Your task to perform on an android device: Open Google Chrome Image 0: 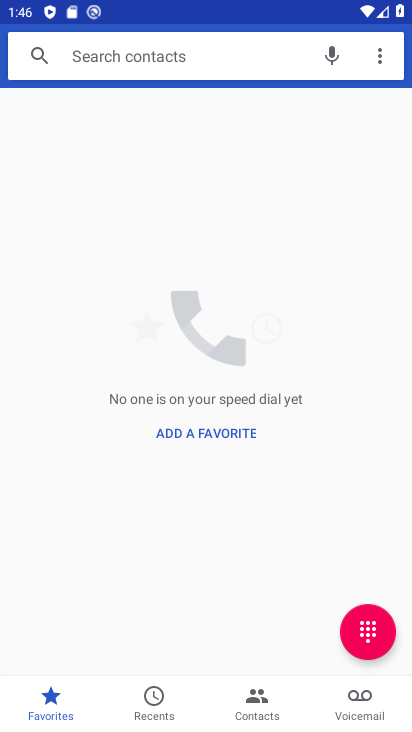
Step 0: press home button
Your task to perform on an android device: Open Google Chrome Image 1: 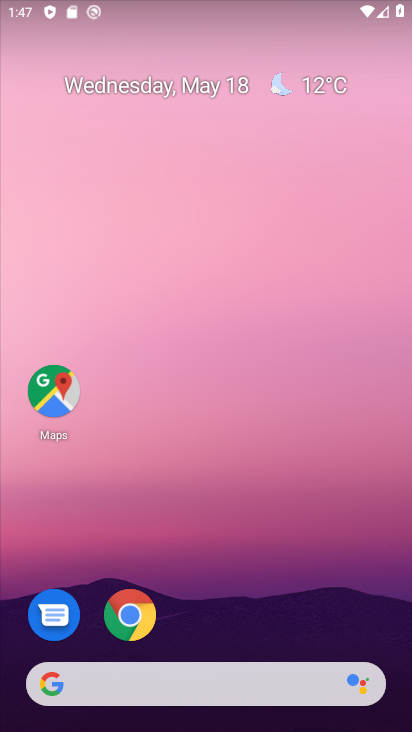
Step 1: drag from (338, 610) to (258, 51)
Your task to perform on an android device: Open Google Chrome Image 2: 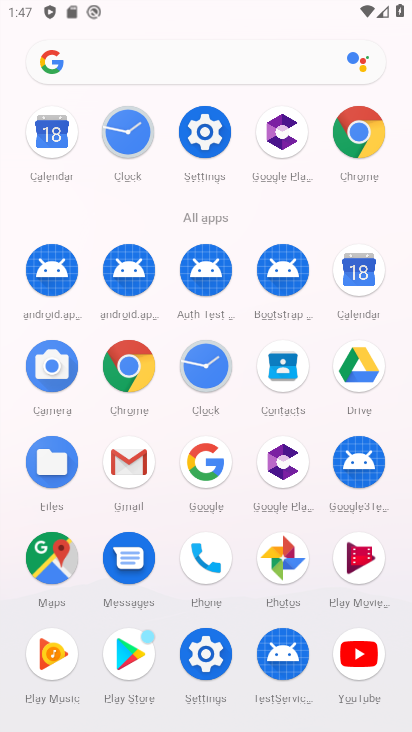
Step 2: click (143, 350)
Your task to perform on an android device: Open Google Chrome Image 3: 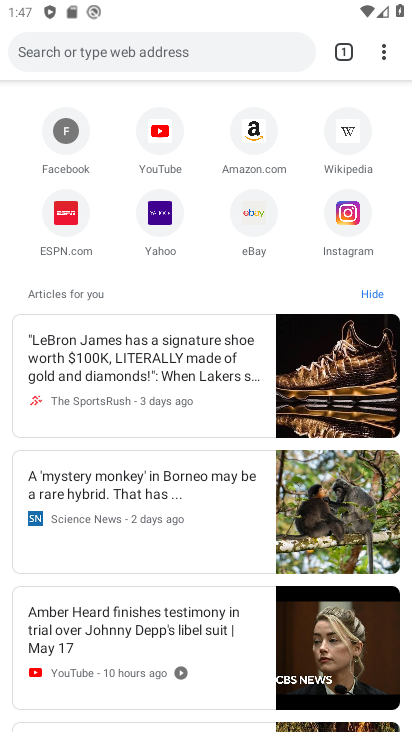
Step 3: task complete